Your task to perform on an android device: move a message to another label in the gmail app Image 0: 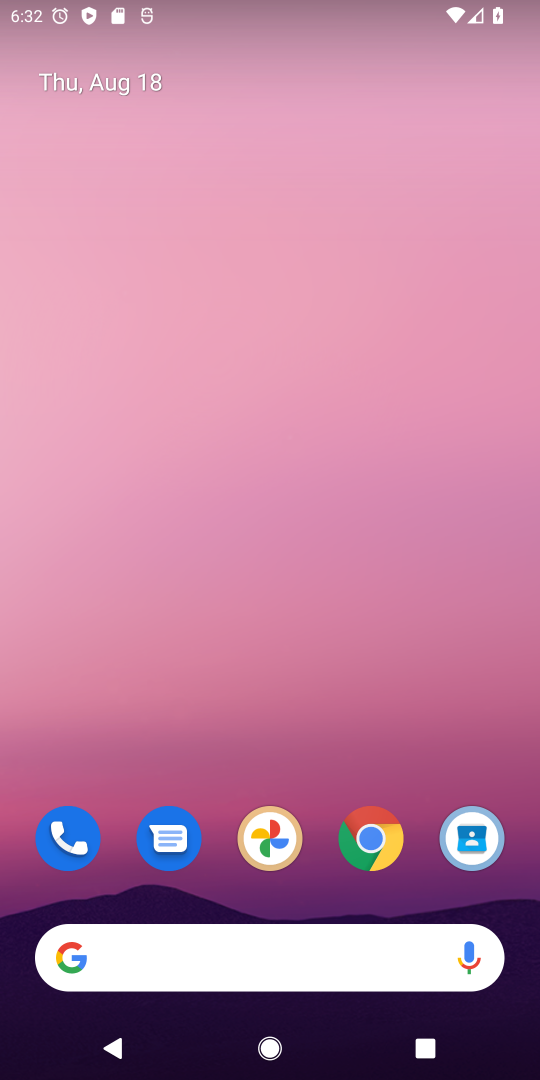
Step 0: drag from (335, 897) to (358, 120)
Your task to perform on an android device: move a message to another label in the gmail app Image 1: 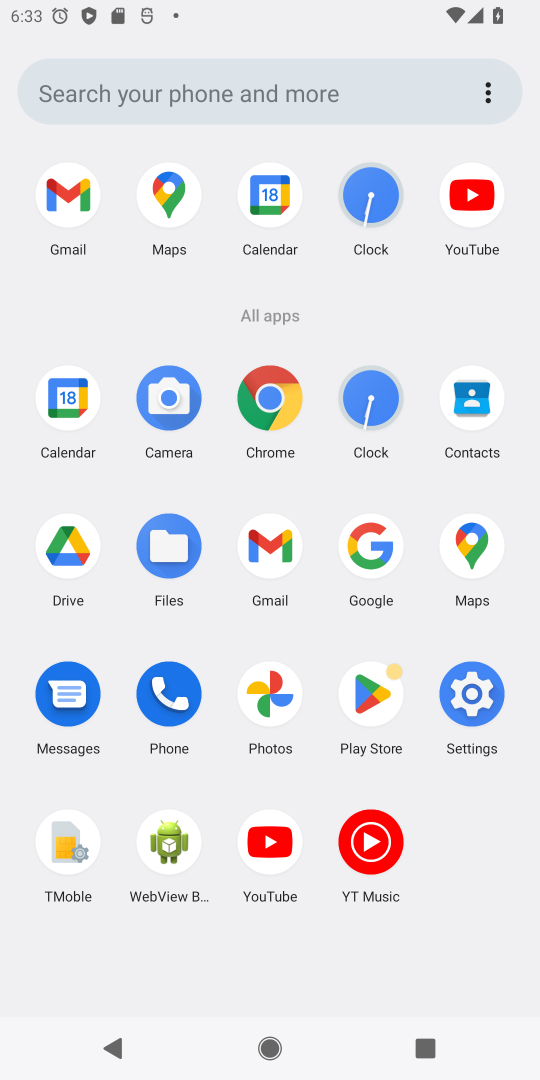
Step 1: click (58, 192)
Your task to perform on an android device: move a message to another label in the gmail app Image 2: 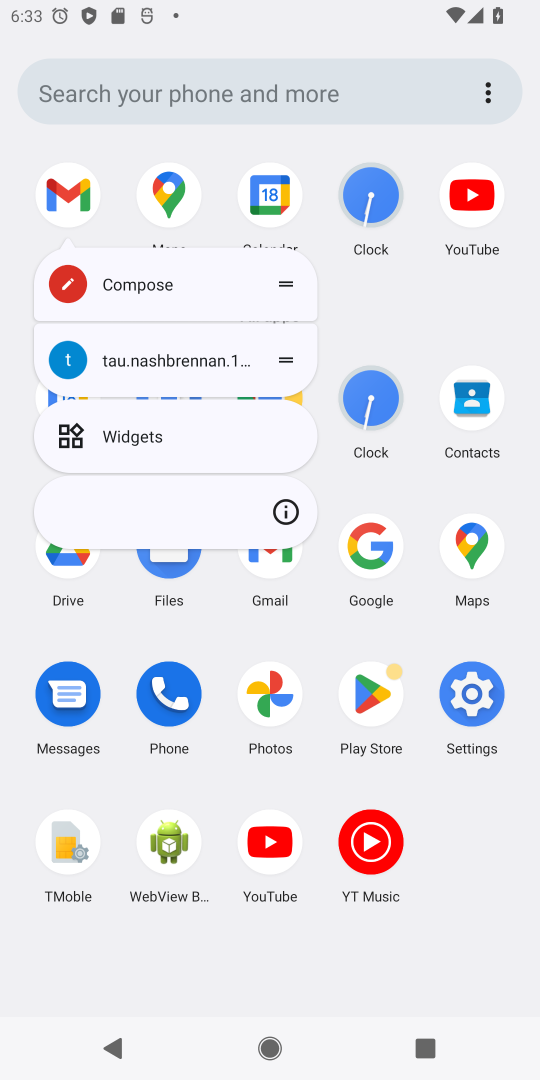
Step 2: click (77, 191)
Your task to perform on an android device: move a message to another label in the gmail app Image 3: 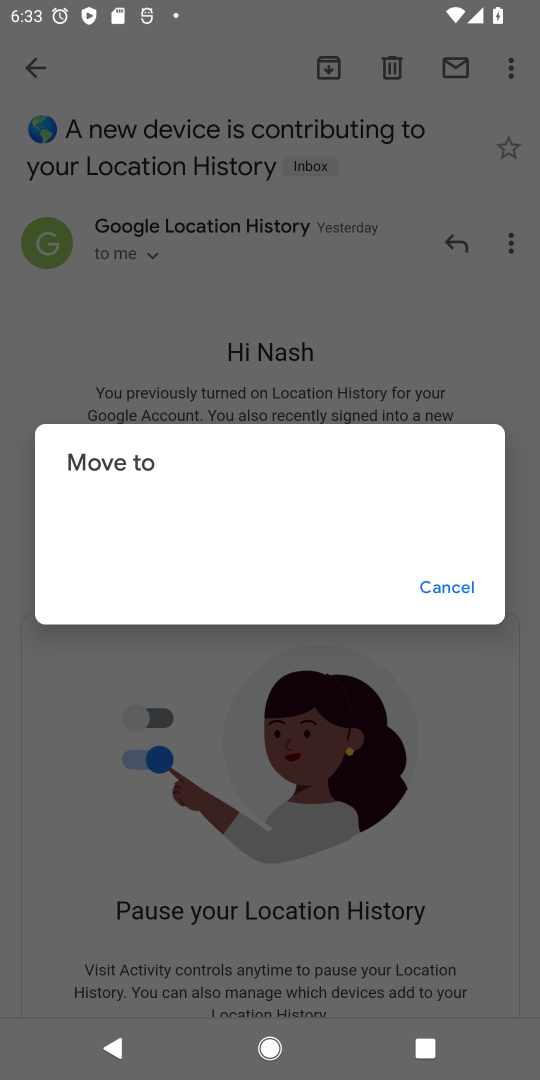
Step 3: click (463, 601)
Your task to perform on an android device: move a message to another label in the gmail app Image 4: 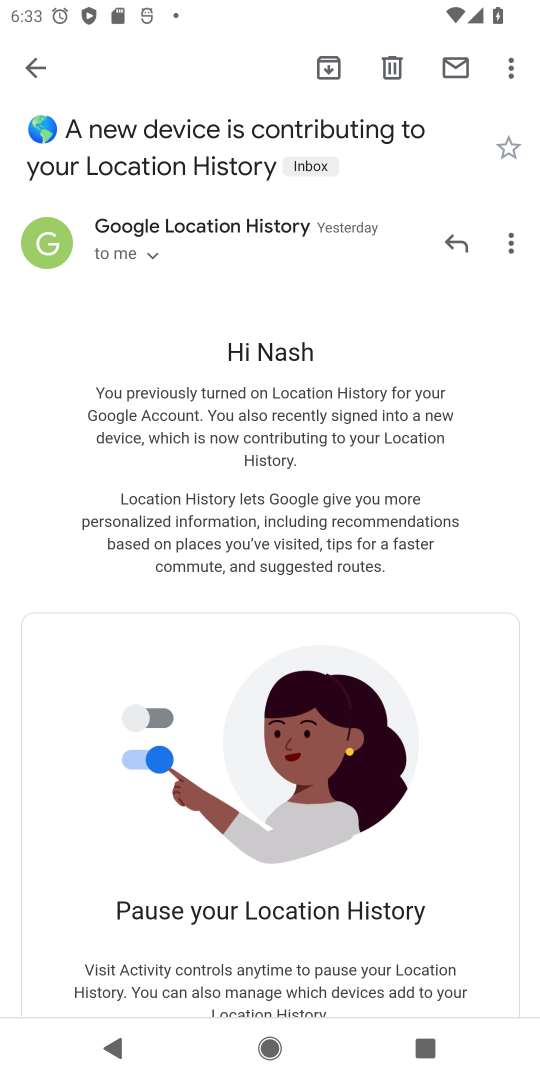
Step 4: click (486, 68)
Your task to perform on an android device: move a message to another label in the gmail app Image 5: 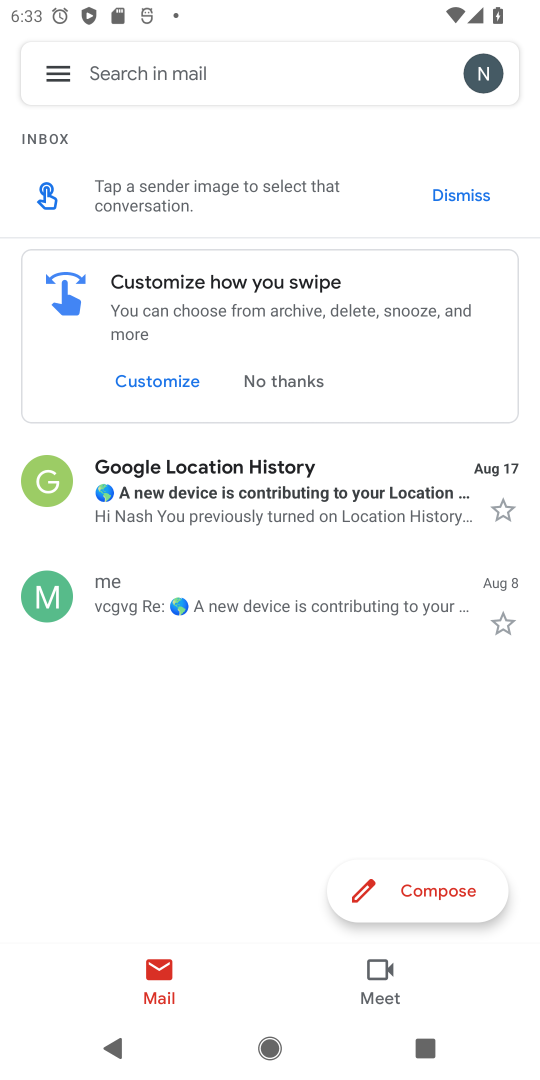
Step 5: click (228, 489)
Your task to perform on an android device: move a message to another label in the gmail app Image 6: 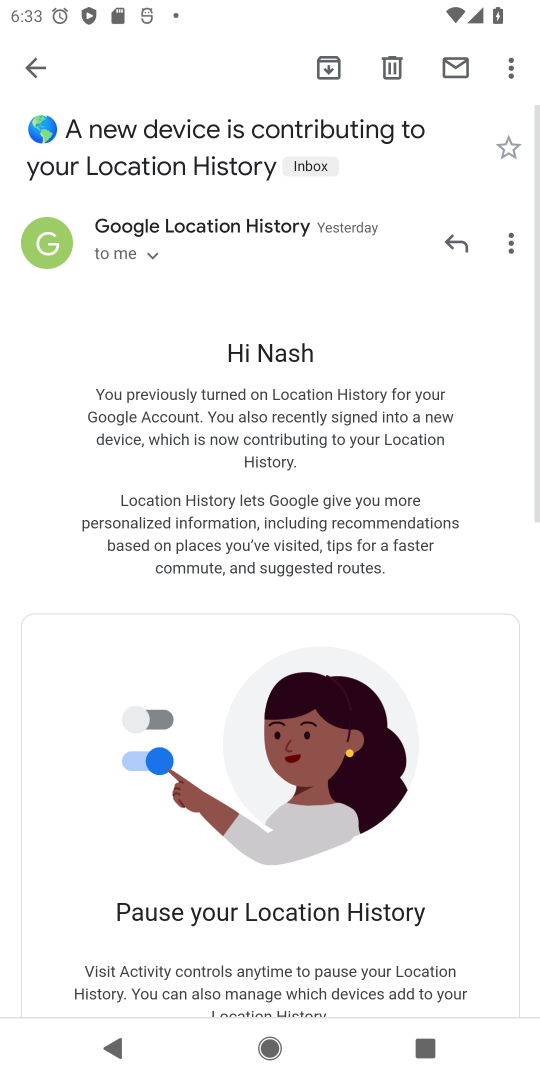
Step 6: click (519, 75)
Your task to perform on an android device: move a message to another label in the gmail app Image 7: 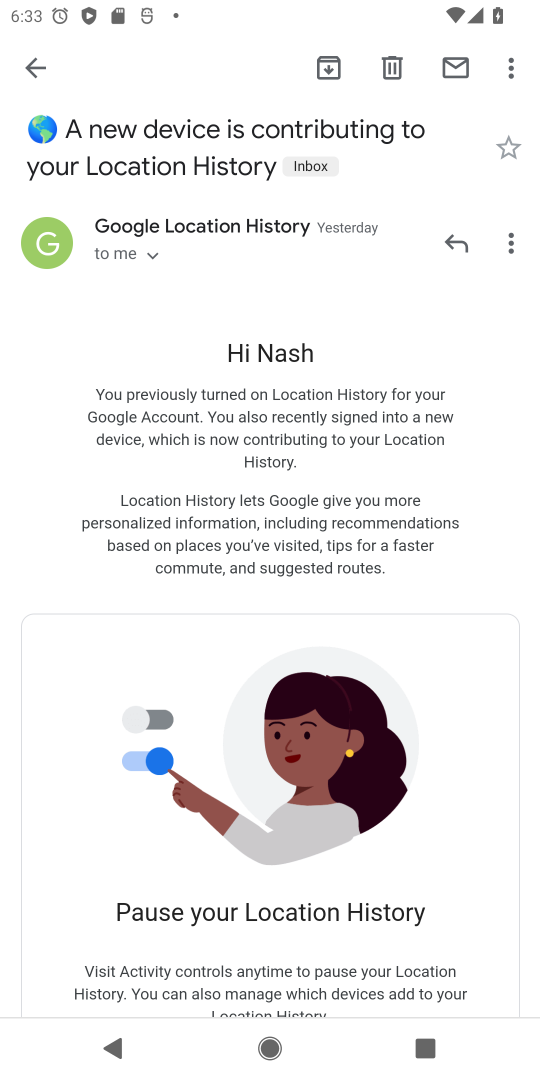
Step 7: click (508, 74)
Your task to perform on an android device: move a message to another label in the gmail app Image 8: 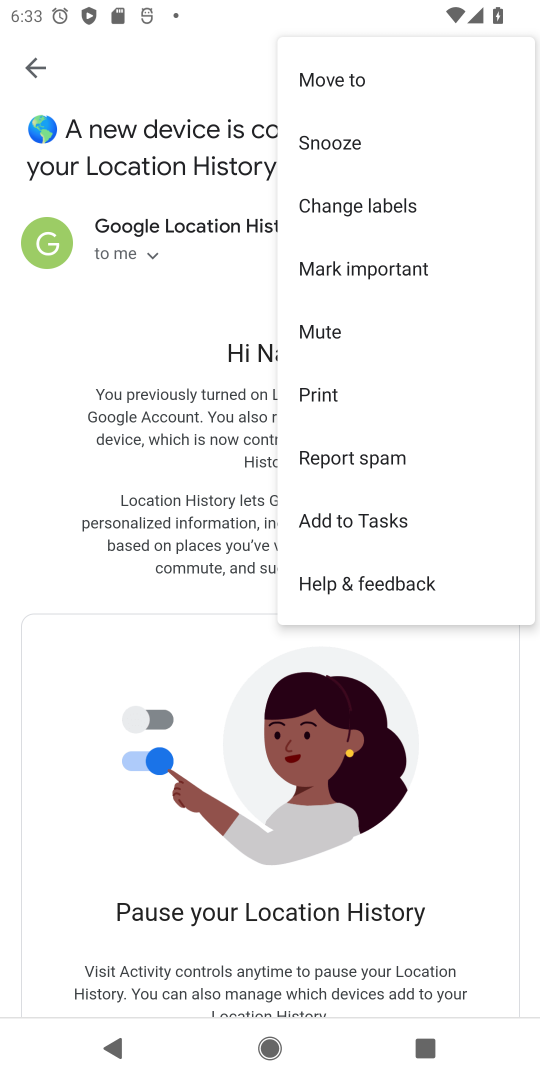
Step 8: click (363, 209)
Your task to perform on an android device: move a message to another label in the gmail app Image 9: 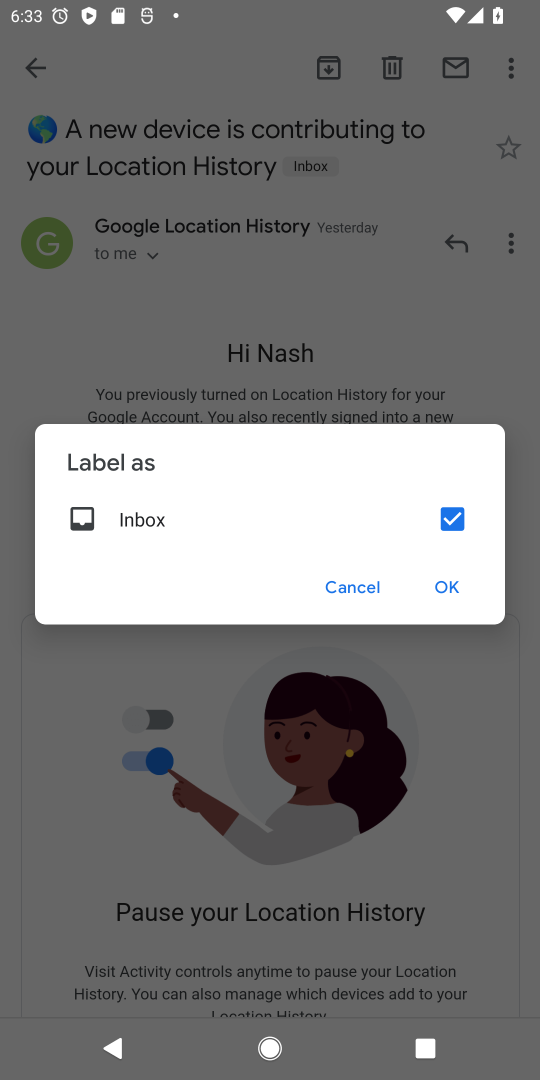
Step 9: click (447, 589)
Your task to perform on an android device: move a message to another label in the gmail app Image 10: 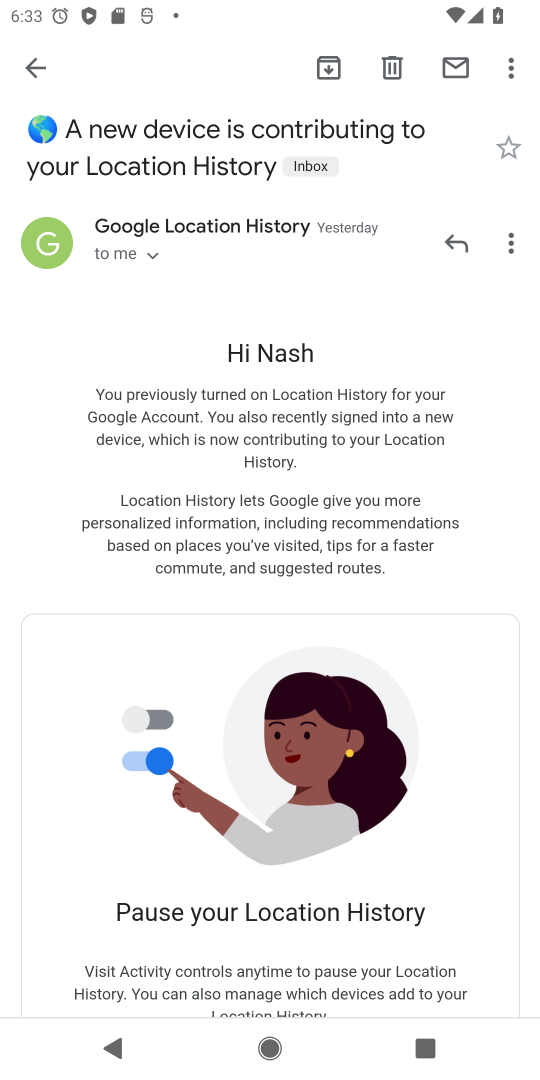
Step 10: task complete